Your task to perform on an android device: What's the weather? Image 0: 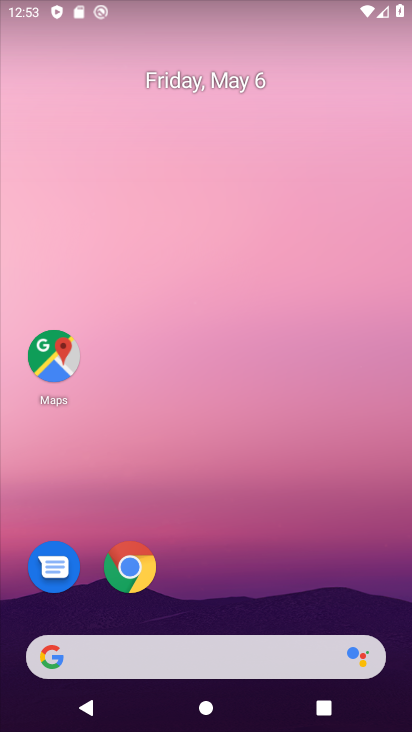
Step 0: drag from (312, 692) to (368, 242)
Your task to perform on an android device: What's the weather? Image 1: 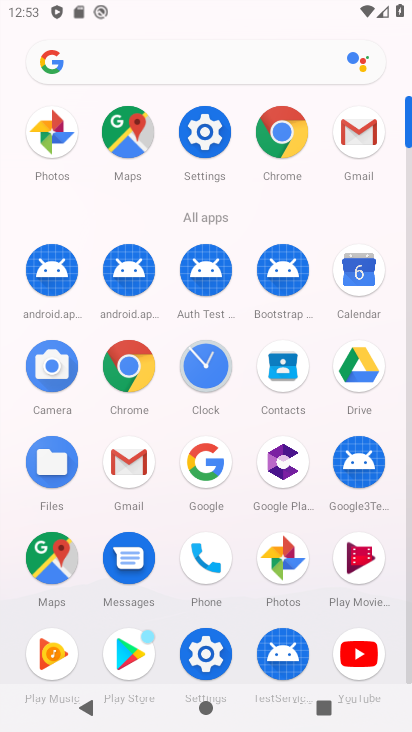
Step 1: click (179, 59)
Your task to perform on an android device: What's the weather? Image 2: 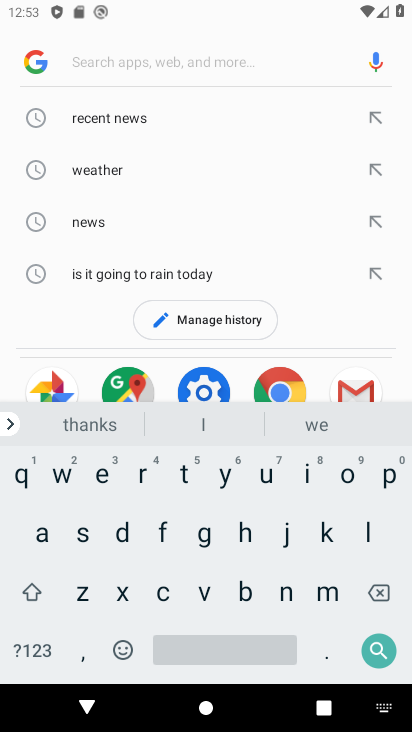
Step 2: click (105, 163)
Your task to perform on an android device: What's the weather? Image 3: 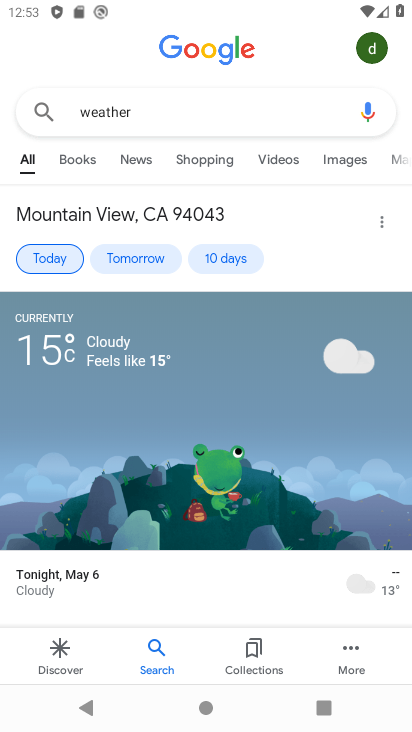
Step 3: task complete